Your task to perform on an android device: turn off location history Image 0: 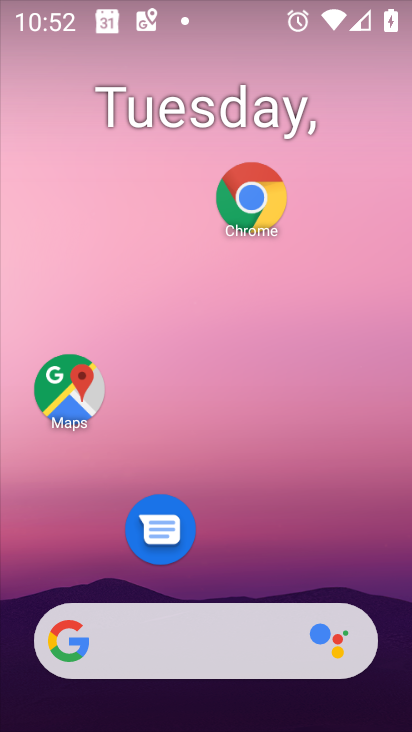
Step 0: drag from (337, 547) to (305, 139)
Your task to perform on an android device: turn off location history Image 1: 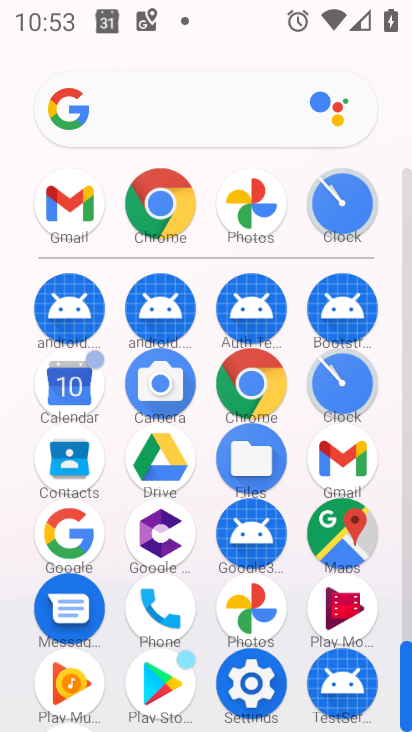
Step 1: click (245, 692)
Your task to perform on an android device: turn off location history Image 2: 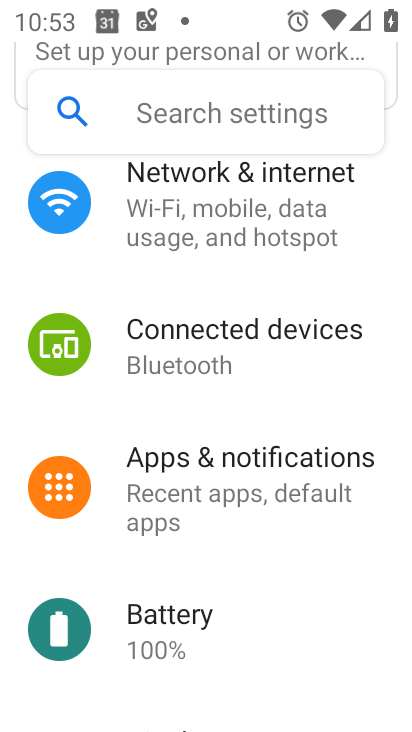
Step 2: drag from (208, 626) to (224, 279)
Your task to perform on an android device: turn off location history Image 3: 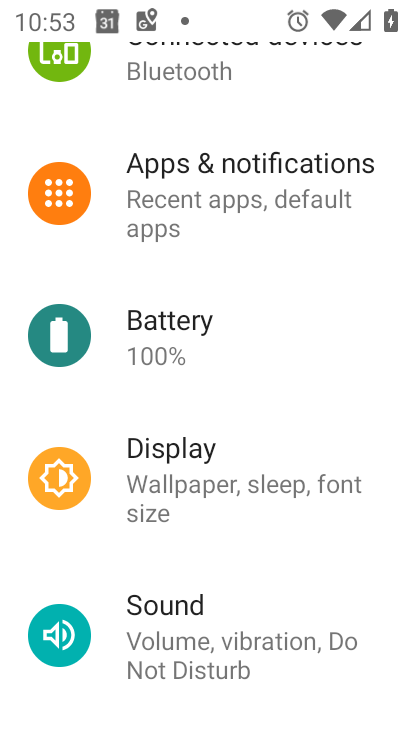
Step 3: drag from (249, 653) to (255, 274)
Your task to perform on an android device: turn off location history Image 4: 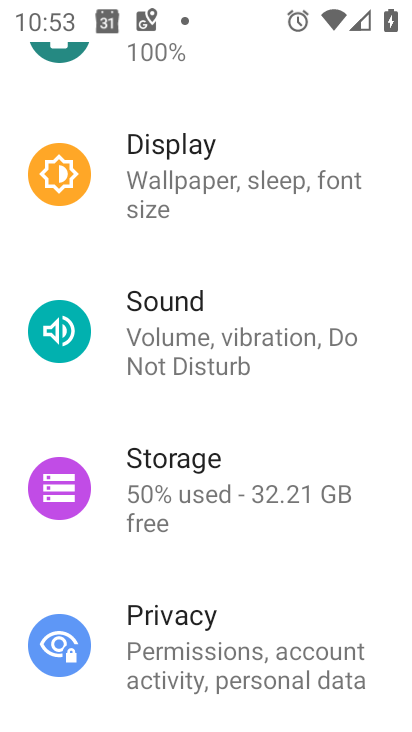
Step 4: drag from (210, 640) to (240, 276)
Your task to perform on an android device: turn off location history Image 5: 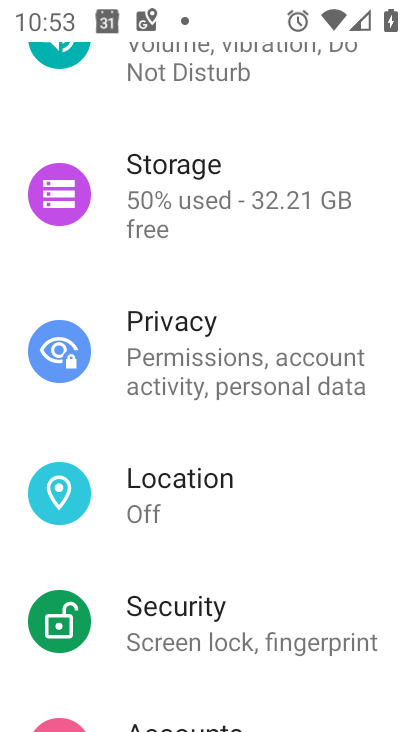
Step 5: click (248, 516)
Your task to perform on an android device: turn off location history Image 6: 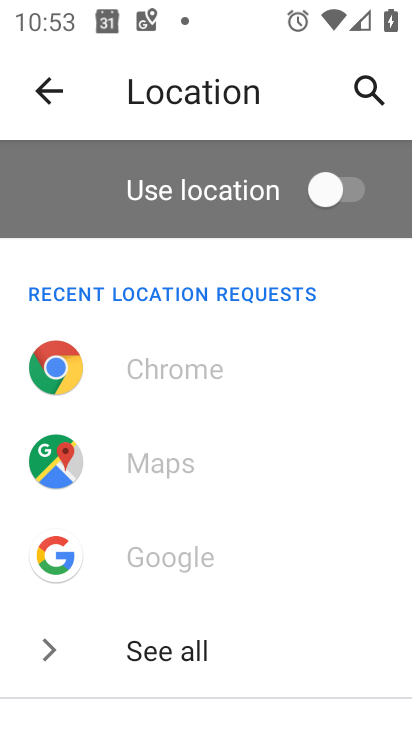
Step 6: task complete